Your task to perform on an android device: Search for pizza restaurants on Maps Image 0: 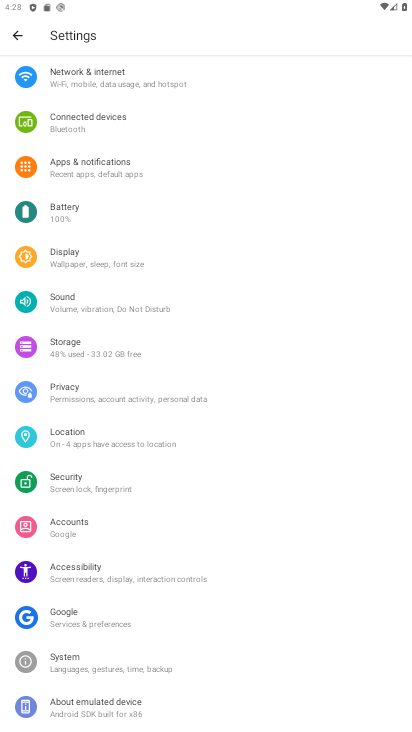
Step 0: press home button
Your task to perform on an android device: Search for pizza restaurants on Maps Image 1: 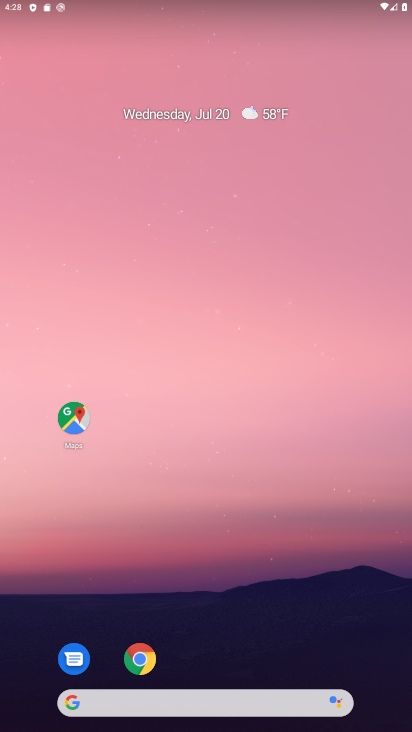
Step 1: drag from (275, 679) to (274, 183)
Your task to perform on an android device: Search for pizza restaurants on Maps Image 2: 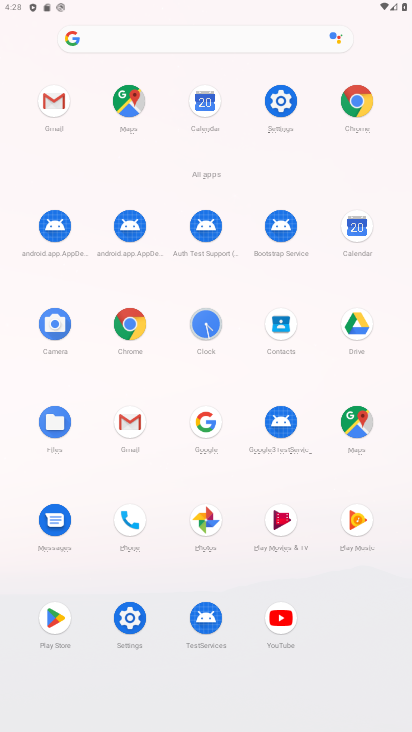
Step 2: click (355, 426)
Your task to perform on an android device: Search for pizza restaurants on Maps Image 3: 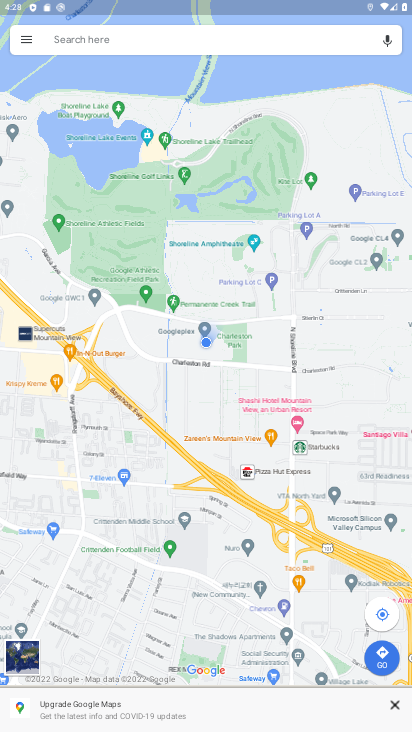
Step 3: click (255, 28)
Your task to perform on an android device: Search for pizza restaurants on Maps Image 4: 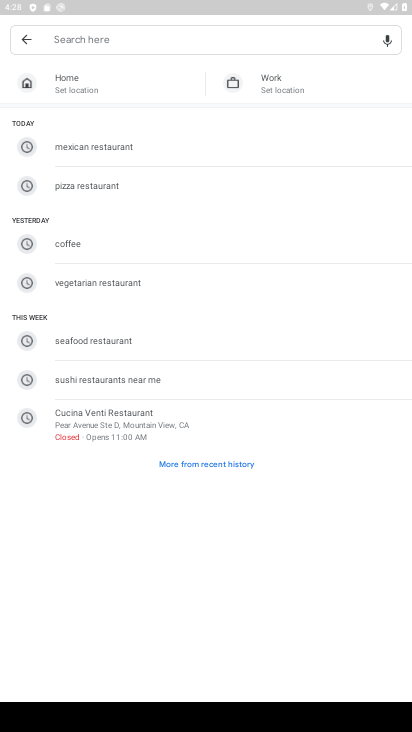
Step 4: click (95, 181)
Your task to perform on an android device: Search for pizza restaurants on Maps Image 5: 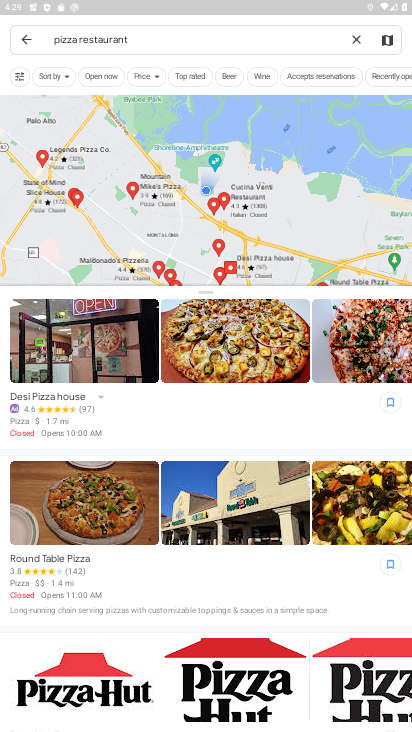
Step 5: task complete